Your task to perform on an android device: clear all cookies in the chrome app Image 0: 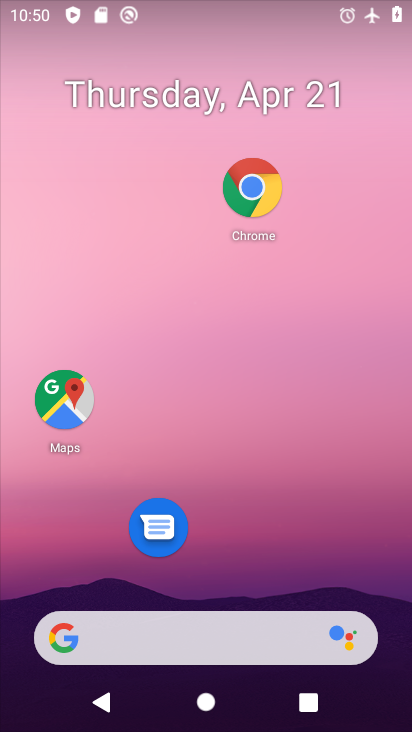
Step 0: drag from (294, 523) to (340, 201)
Your task to perform on an android device: clear all cookies in the chrome app Image 1: 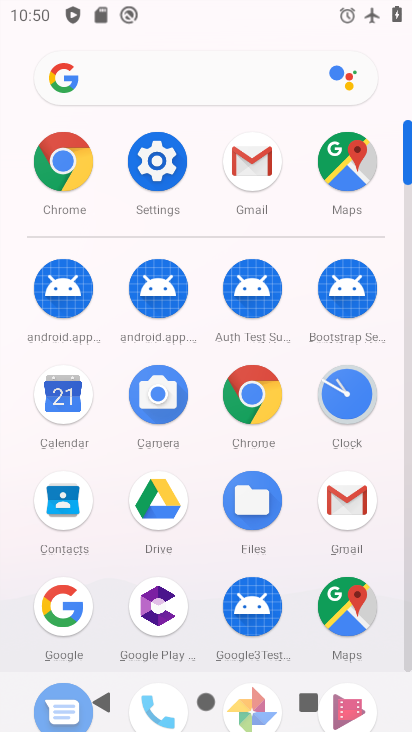
Step 1: click (254, 413)
Your task to perform on an android device: clear all cookies in the chrome app Image 2: 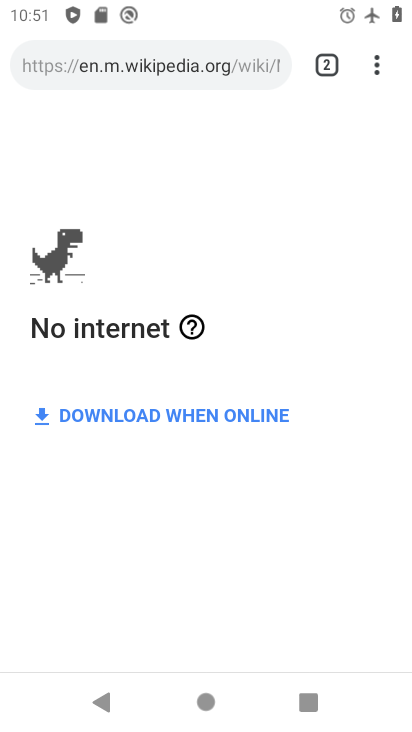
Step 2: click (377, 74)
Your task to perform on an android device: clear all cookies in the chrome app Image 3: 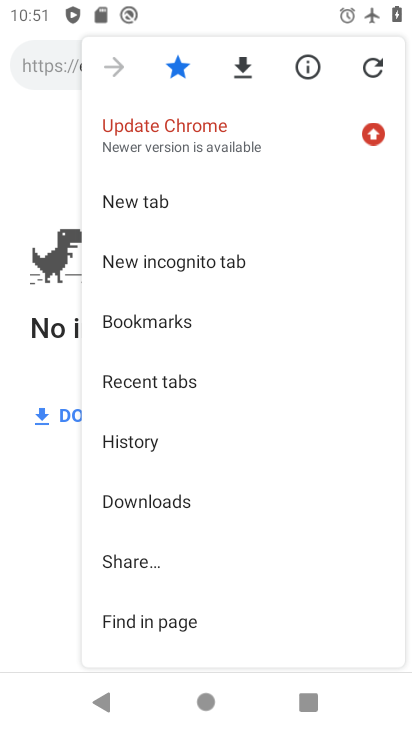
Step 3: drag from (269, 524) to (288, 200)
Your task to perform on an android device: clear all cookies in the chrome app Image 4: 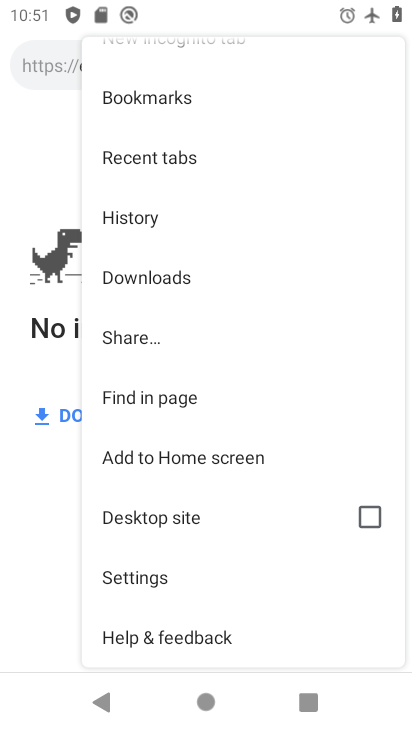
Step 4: click (247, 572)
Your task to perform on an android device: clear all cookies in the chrome app Image 5: 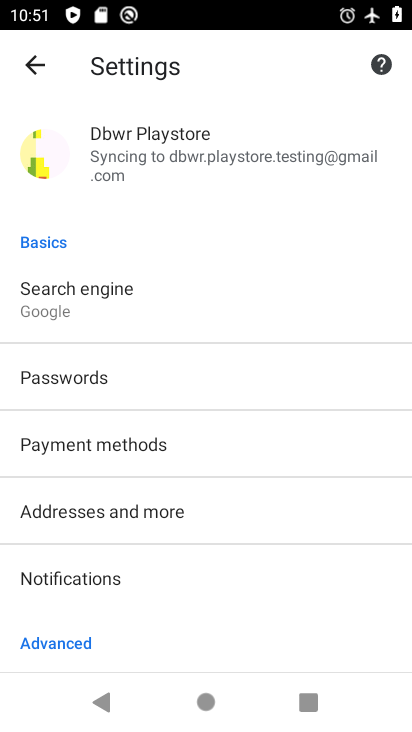
Step 5: drag from (219, 550) to (238, 200)
Your task to perform on an android device: clear all cookies in the chrome app Image 6: 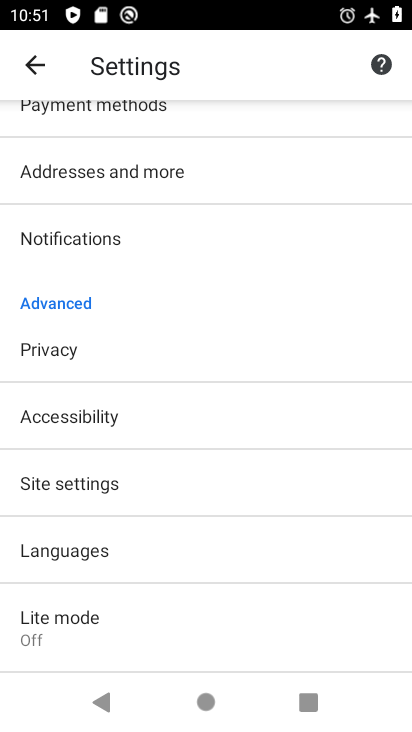
Step 6: click (173, 477)
Your task to perform on an android device: clear all cookies in the chrome app Image 7: 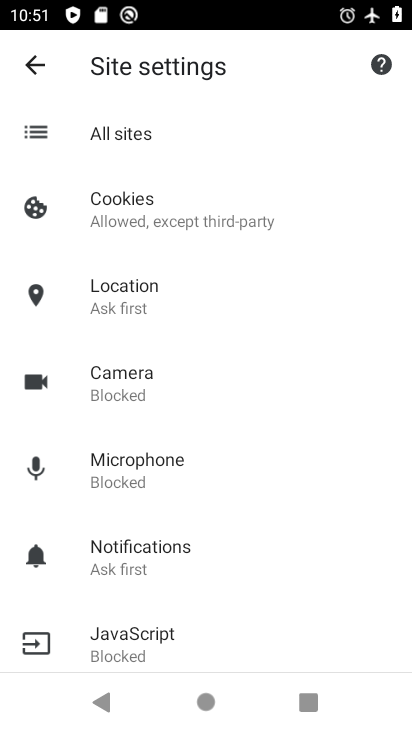
Step 7: click (239, 215)
Your task to perform on an android device: clear all cookies in the chrome app Image 8: 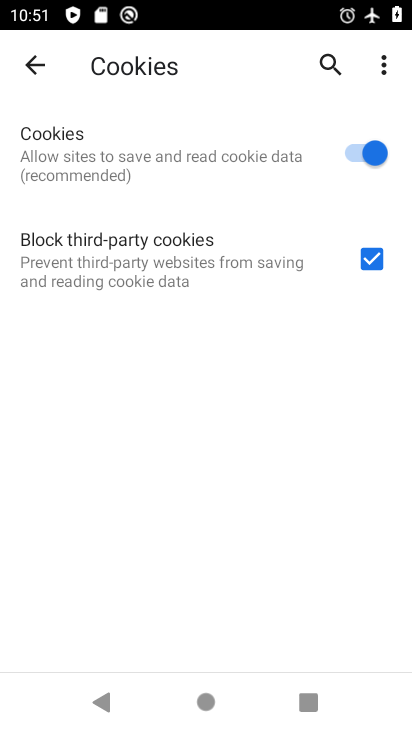
Step 8: task complete